Your task to perform on an android device: change the clock display to show seconds Image 0: 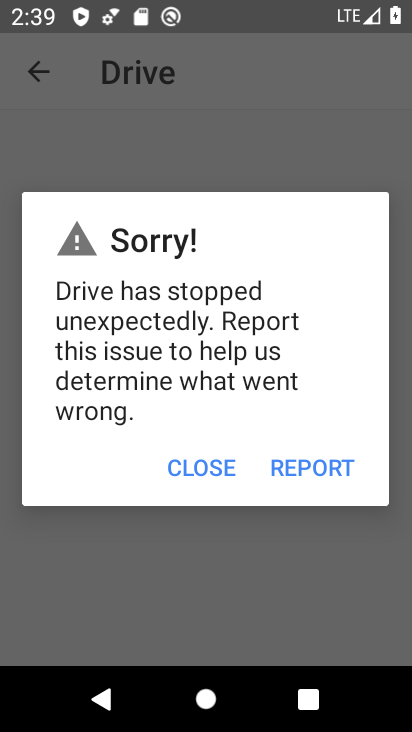
Step 0: press home button
Your task to perform on an android device: change the clock display to show seconds Image 1: 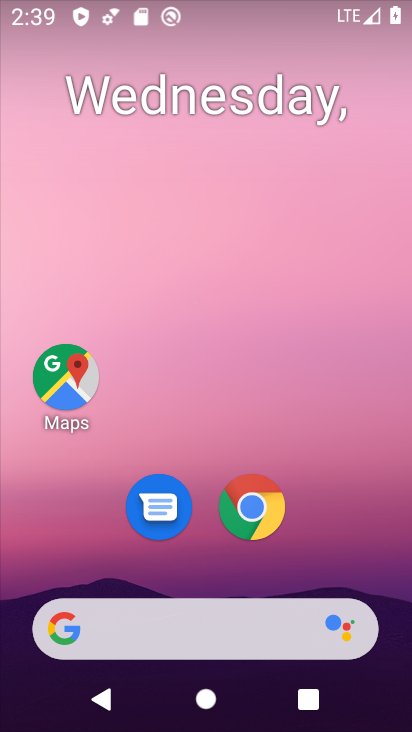
Step 1: drag from (330, 558) to (252, 57)
Your task to perform on an android device: change the clock display to show seconds Image 2: 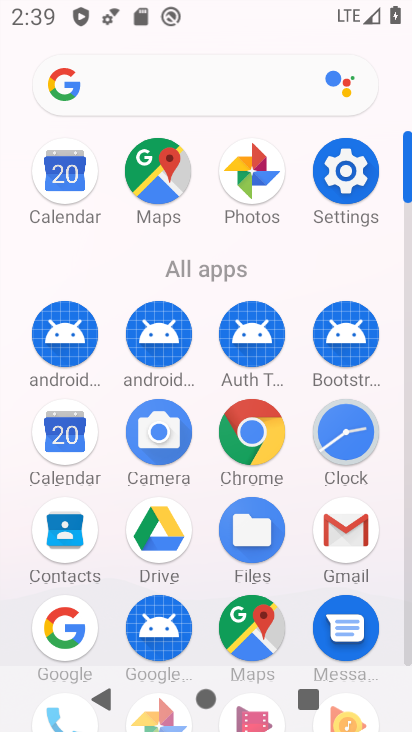
Step 2: click (343, 441)
Your task to perform on an android device: change the clock display to show seconds Image 3: 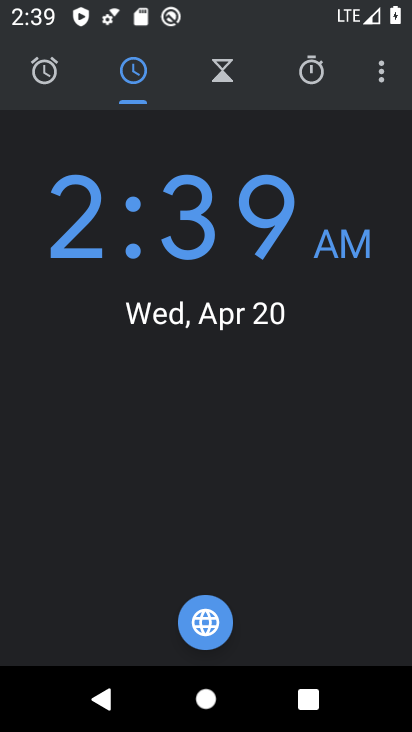
Step 3: click (381, 77)
Your task to perform on an android device: change the clock display to show seconds Image 4: 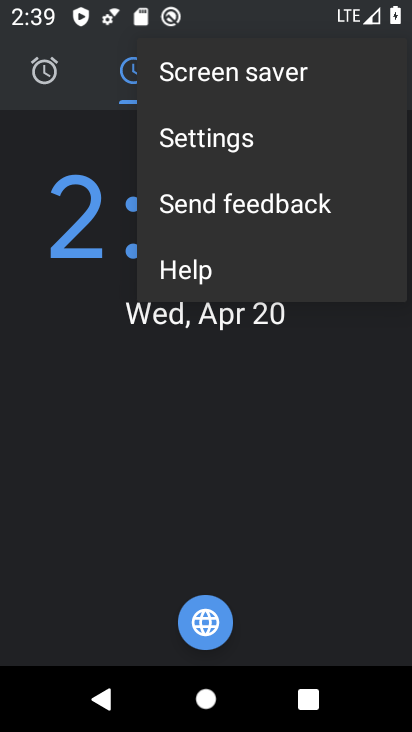
Step 4: click (284, 142)
Your task to perform on an android device: change the clock display to show seconds Image 5: 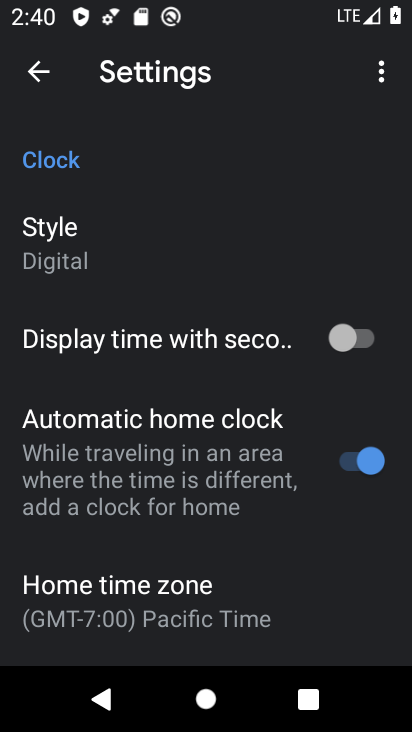
Step 5: click (367, 339)
Your task to perform on an android device: change the clock display to show seconds Image 6: 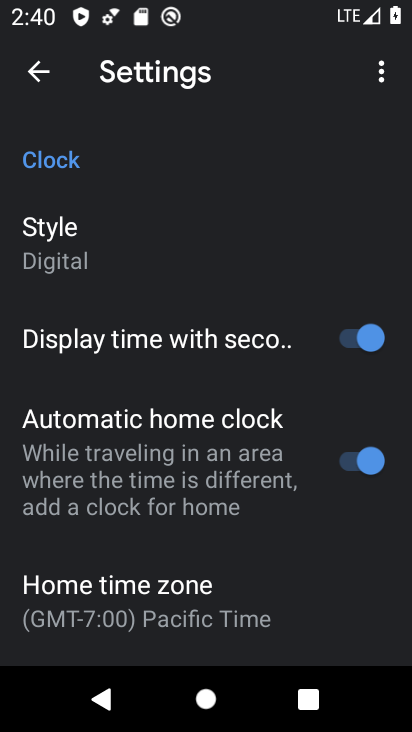
Step 6: task complete